Your task to perform on an android device: open app "VLC for Android" Image 0: 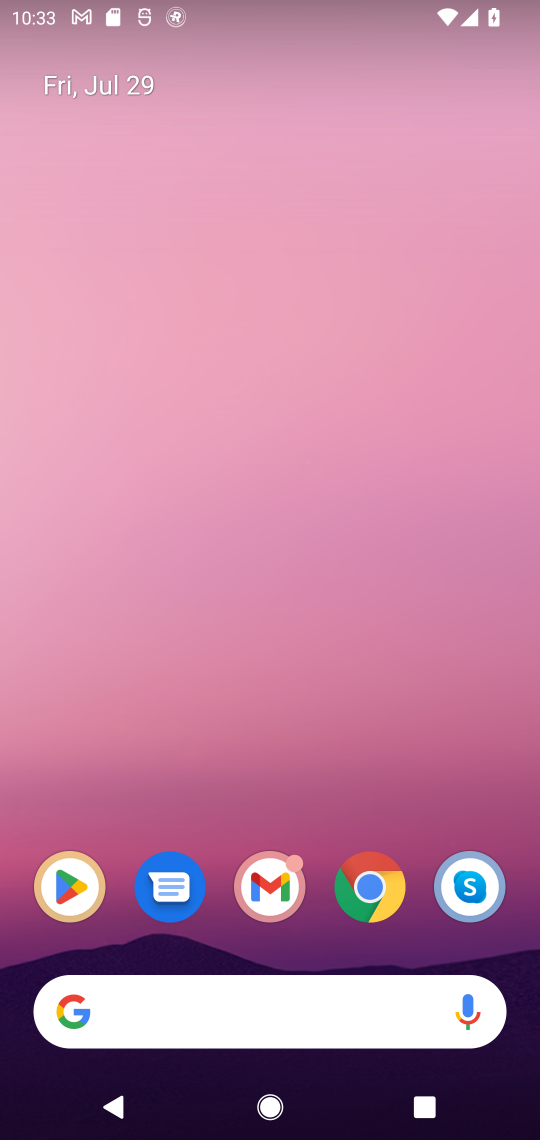
Step 0: click (69, 901)
Your task to perform on an android device: open app "VLC for Android" Image 1: 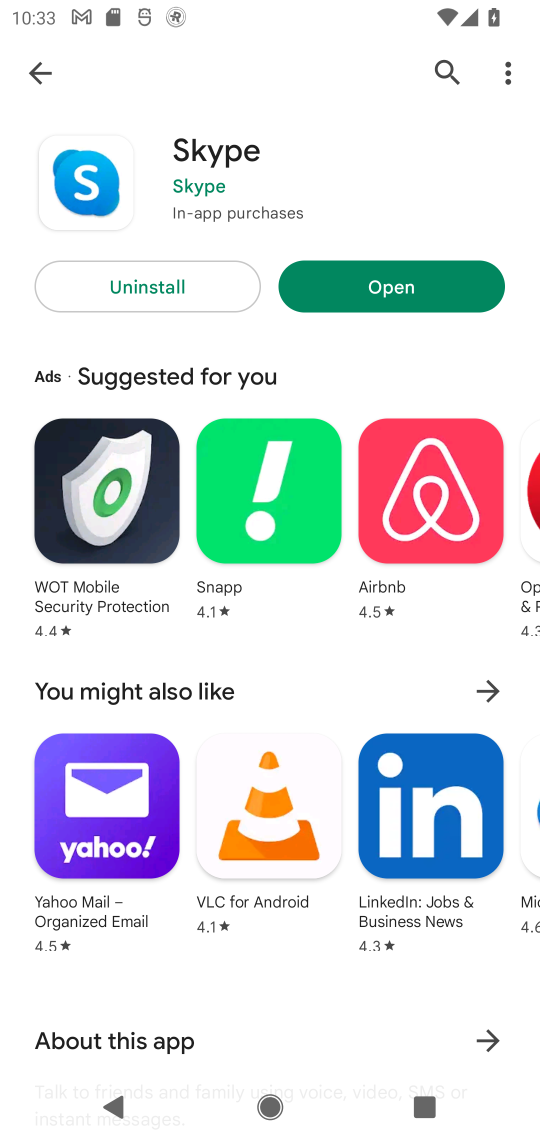
Step 1: click (449, 76)
Your task to perform on an android device: open app "VLC for Android" Image 2: 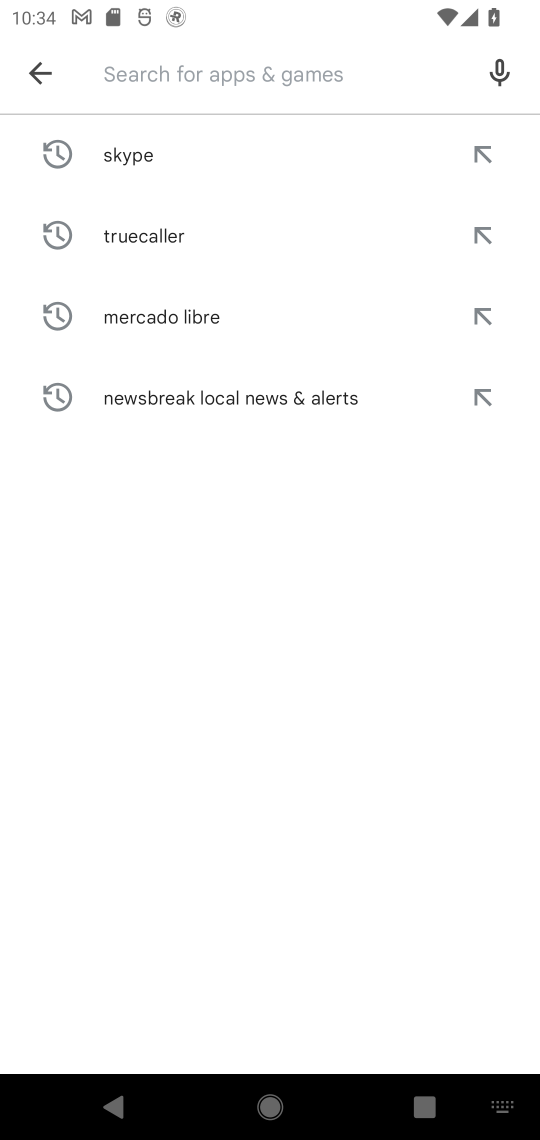
Step 2: type "VLC for Android"
Your task to perform on an android device: open app "VLC for Android" Image 3: 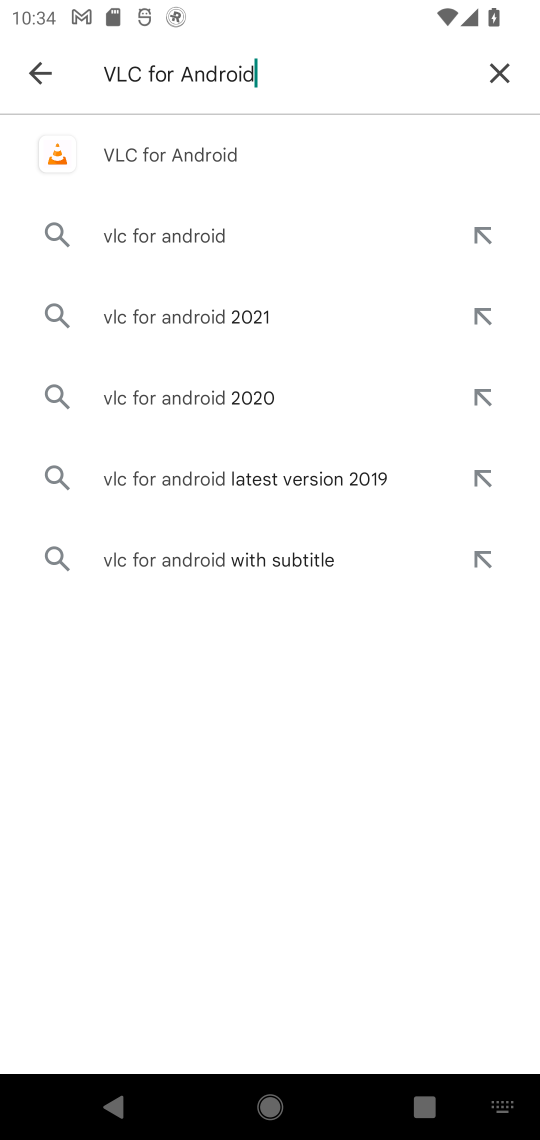
Step 3: click (265, 163)
Your task to perform on an android device: open app "VLC for Android" Image 4: 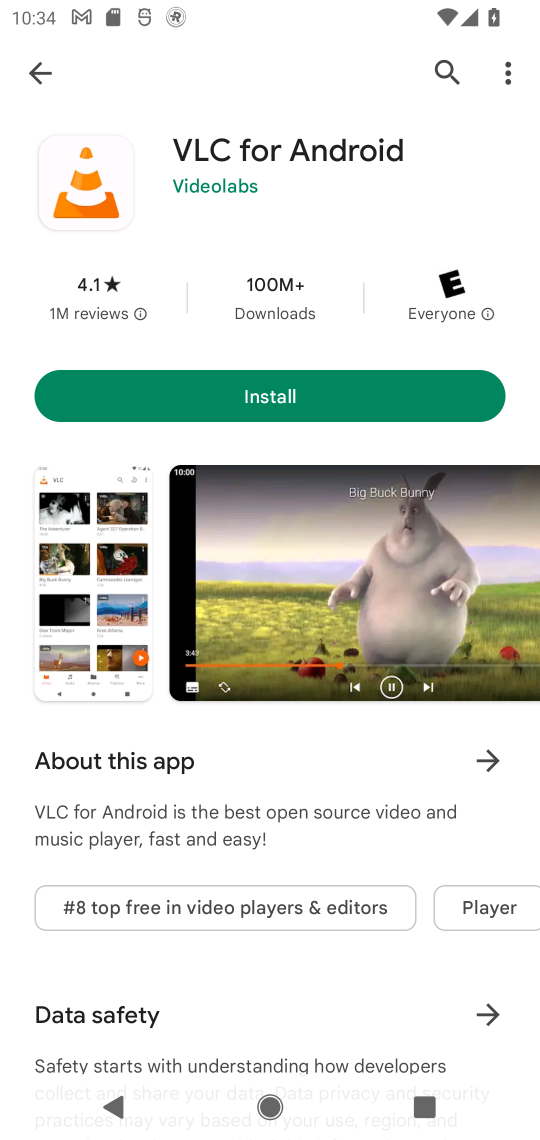
Step 4: task complete